Your task to perform on an android device: Is it going to rain this weekend? Image 0: 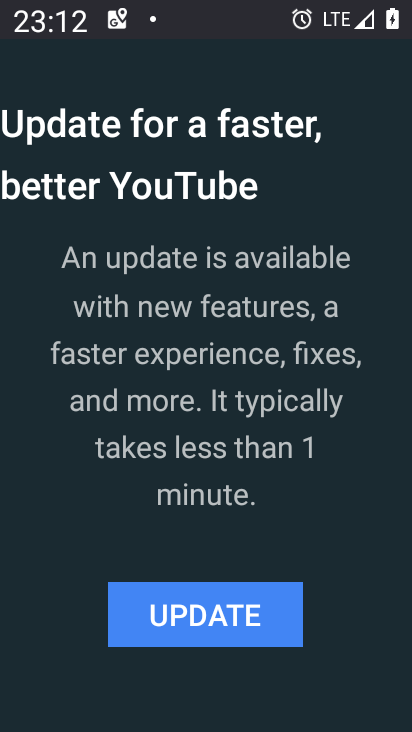
Step 0: press home button
Your task to perform on an android device: Is it going to rain this weekend? Image 1: 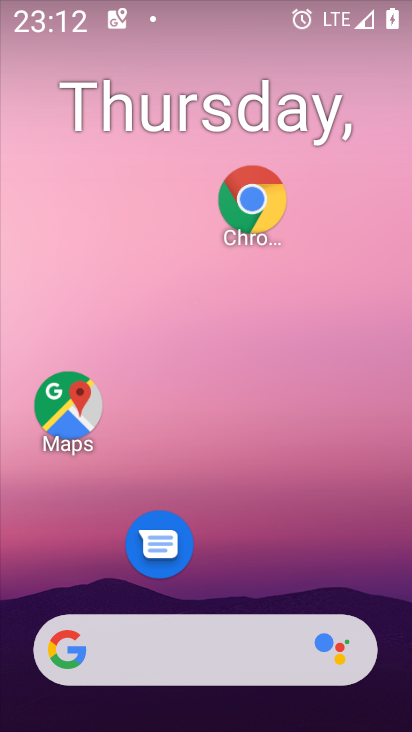
Step 1: click (213, 657)
Your task to perform on an android device: Is it going to rain this weekend? Image 2: 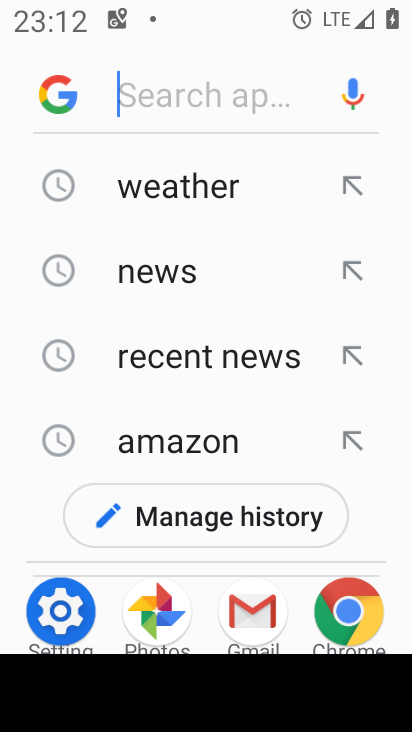
Step 2: click (197, 209)
Your task to perform on an android device: Is it going to rain this weekend? Image 3: 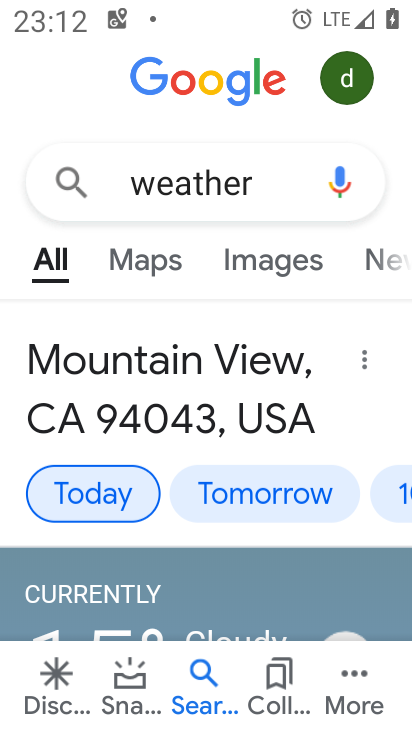
Step 3: click (373, 499)
Your task to perform on an android device: Is it going to rain this weekend? Image 4: 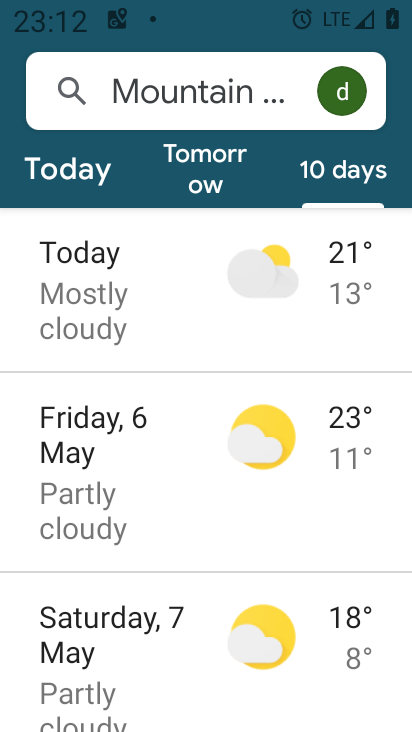
Step 4: task complete